Your task to perform on an android device: turn on improve location accuracy Image 0: 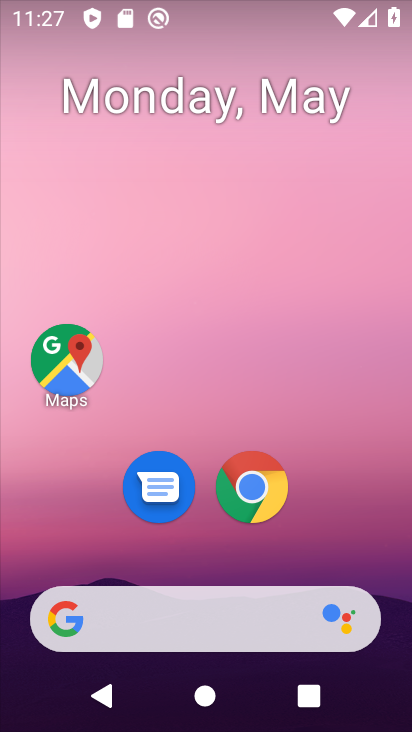
Step 0: drag from (22, 624) to (307, 91)
Your task to perform on an android device: turn on improve location accuracy Image 1: 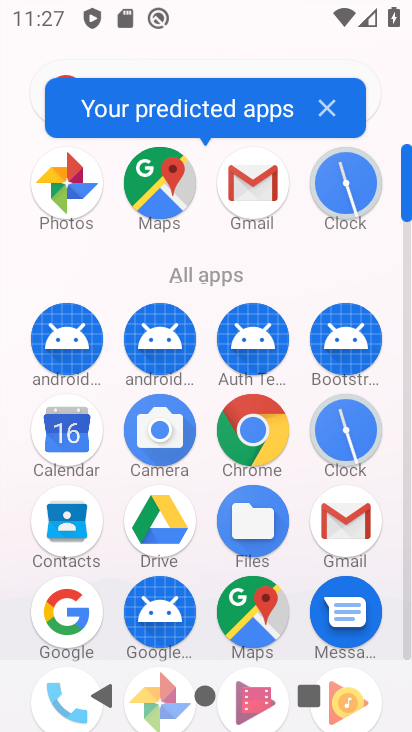
Step 1: drag from (13, 645) to (296, 145)
Your task to perform on an android device: turn on improve location accuracy Image 2: 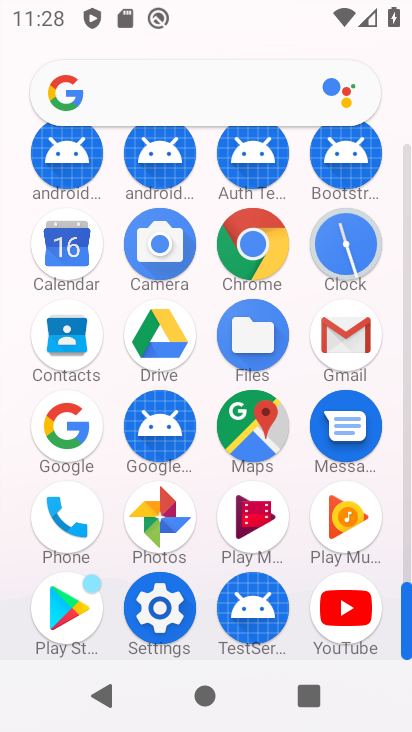
Step 2: click (166, 614)
Your task to perform on an android device: turn on improve location accuracy Image 3: 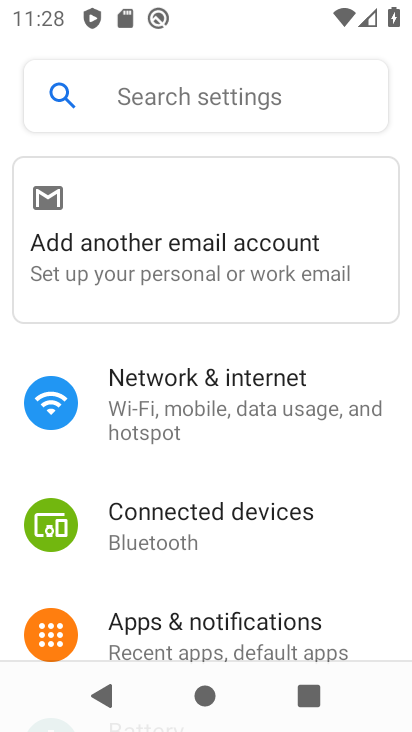
Step 3: drag from (75, 437) to (215, 155)
Your task to perform on an android device: turn on improve location accuracy Image 4: 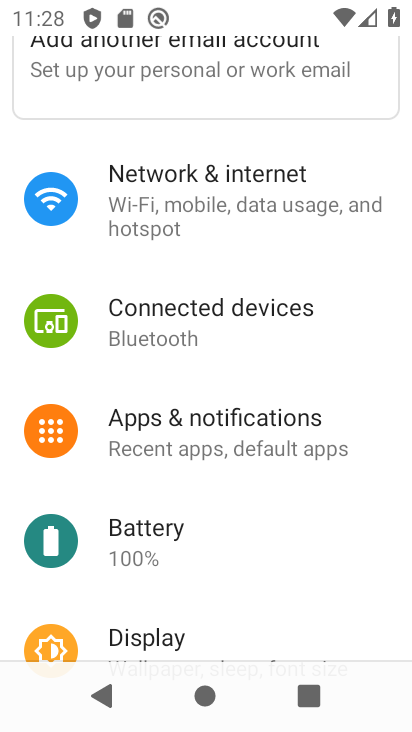
Step 4: drag from (30, 552) to (250, 197)
Your task to perform on an android device: turn on improve location accuracy Image 5: 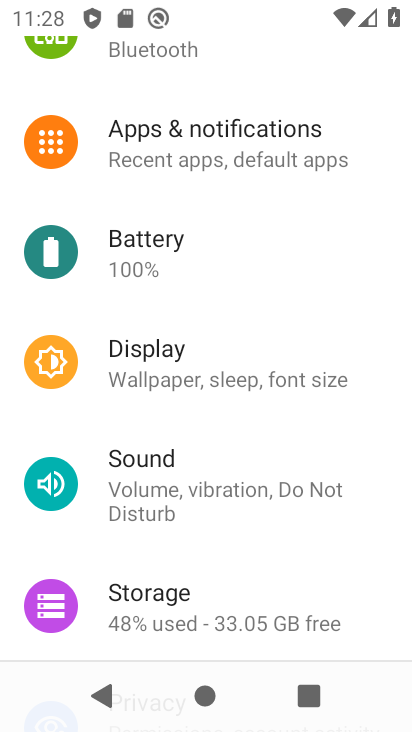
Step 5: drag from (13, 610) to (288, 268)
Your task to perform on an android device: turn on improve location accuracy Image 6: 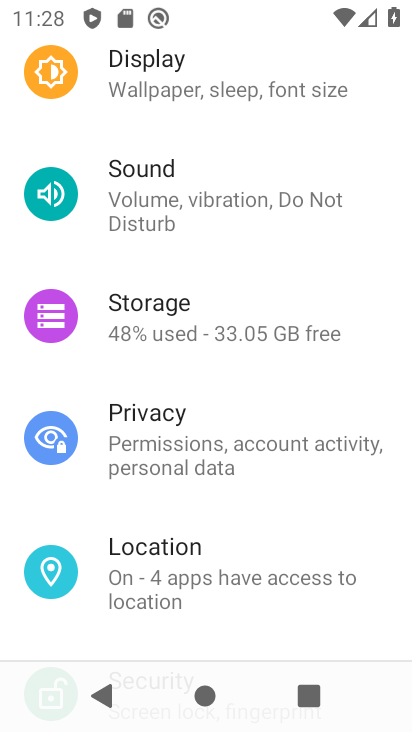
Step 6: click (153, 569)
Your task to perform on an android device: turn on improve location accuracy Image 7: 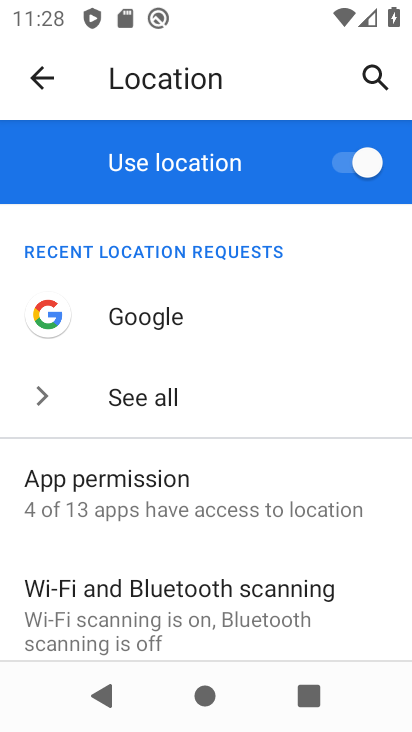
Step 7: drag from (9, 548) to (237, 219)
Your task to perform on an android device: turn on improve location accuracy Image 8: 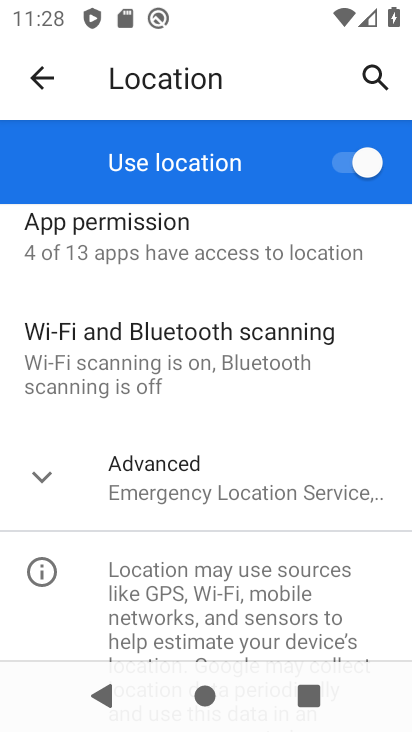
Step 8: click (225, 493)
Your task to perform on an android device: turn on improve location accuracy Image 9: 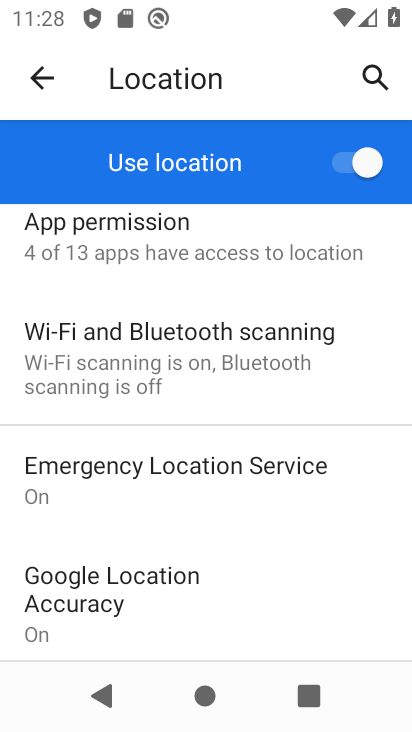
Step 9: click (57, 606)
Your task to perform on an android device: turn on improve location accuracy Image 10: 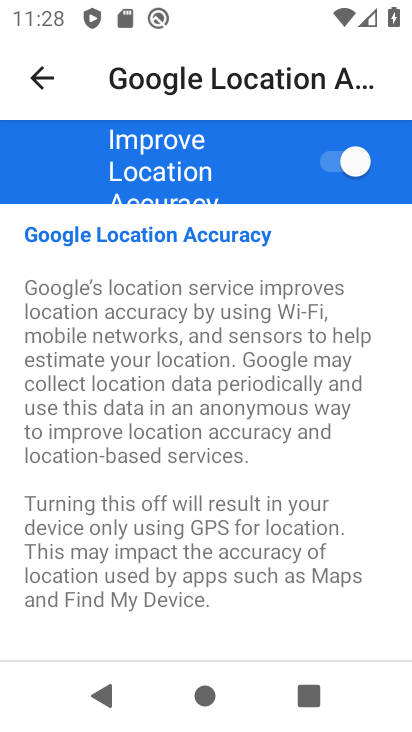
Step 10: task complete